Your task to perform on an android device: Toggle the flashlight Image 0: 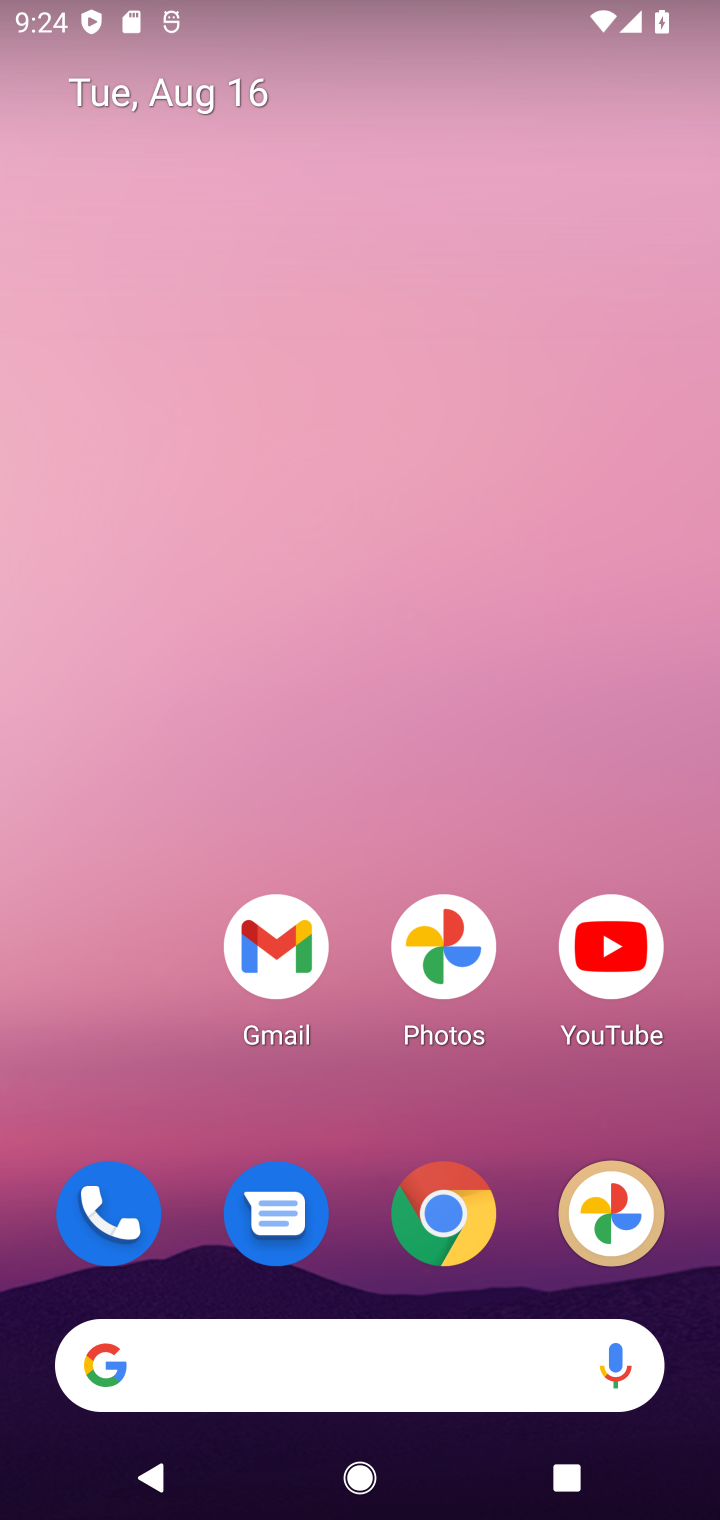
Step 0: drag from (268, 1063) to (287, 380)
Your task to perform on an android device: Toggle the flashlight Image 1: 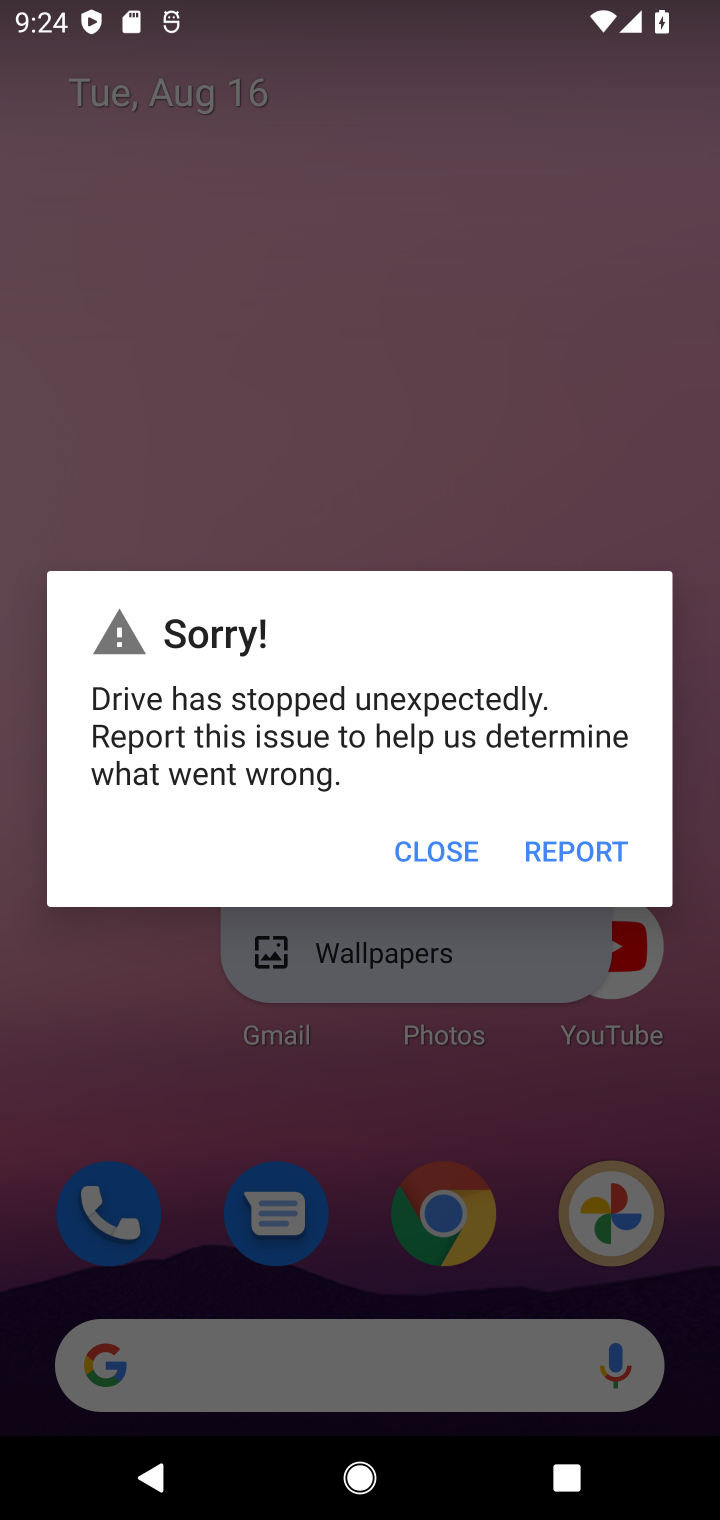
Step 1: click (211, 268)
Your task to perform on an android device: Toggle the flashlight Image 2: 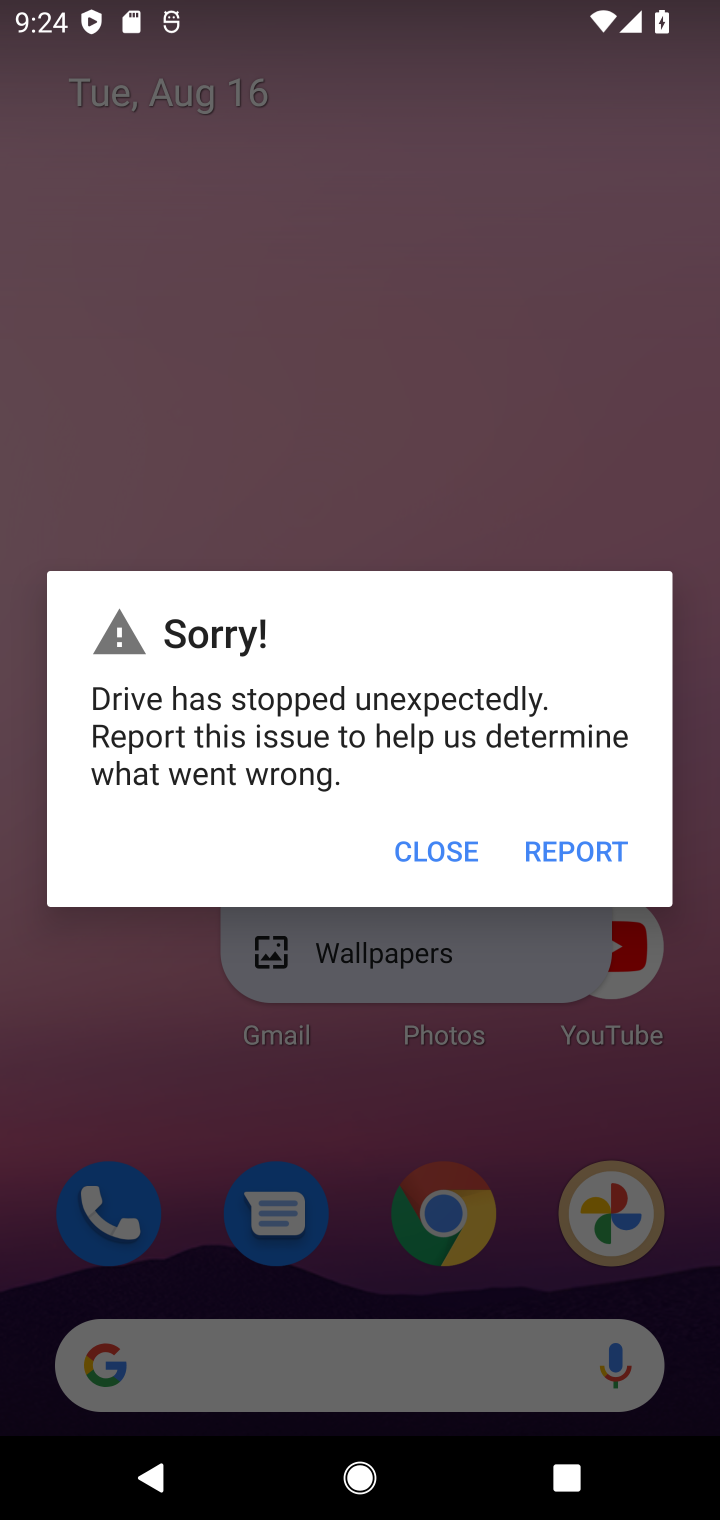
Step 2: click (448, 854)
Your task to perform on an android device: Toggle the flashlight Image 3: 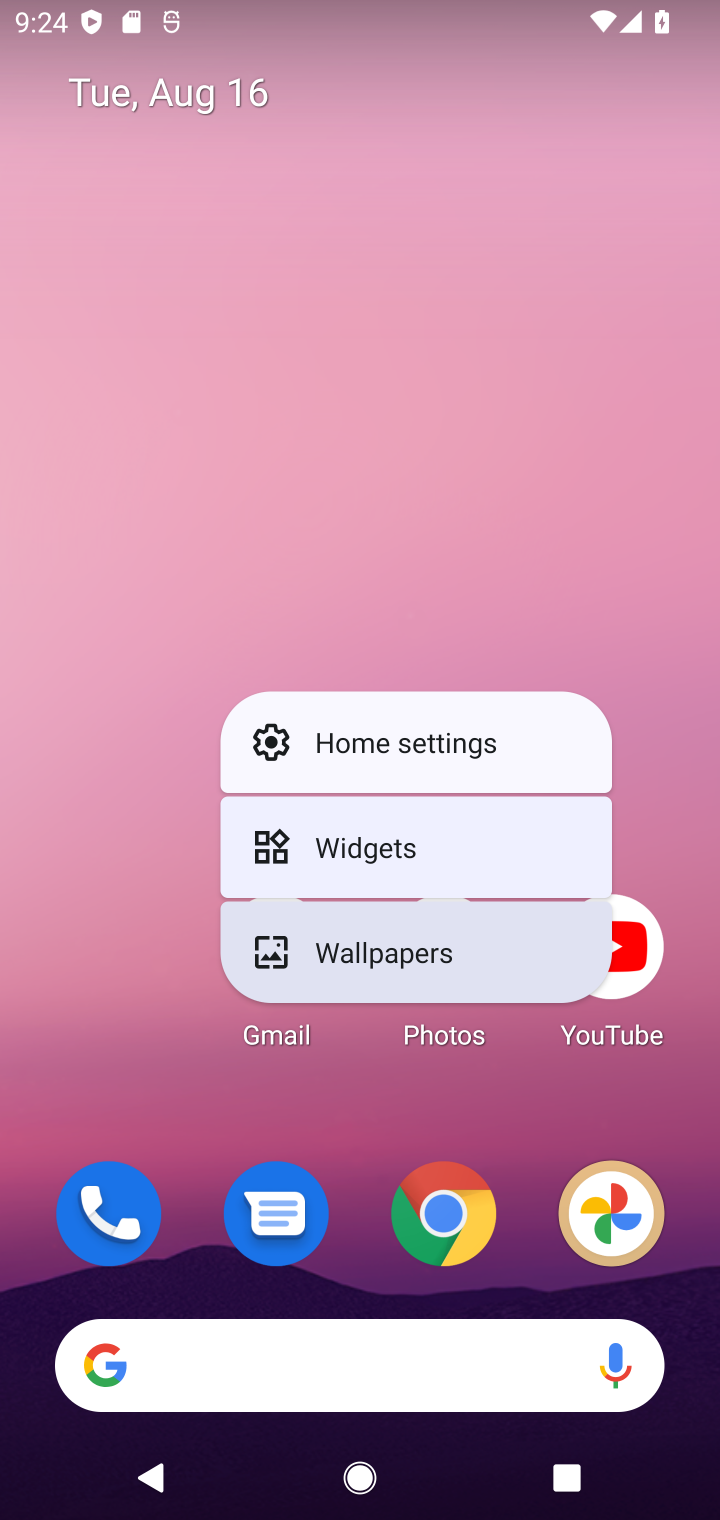
Step 3: drag from (178, 1138) to (201, 463)
Your task to perform on an android device: Toggle the flashlight Image 4: 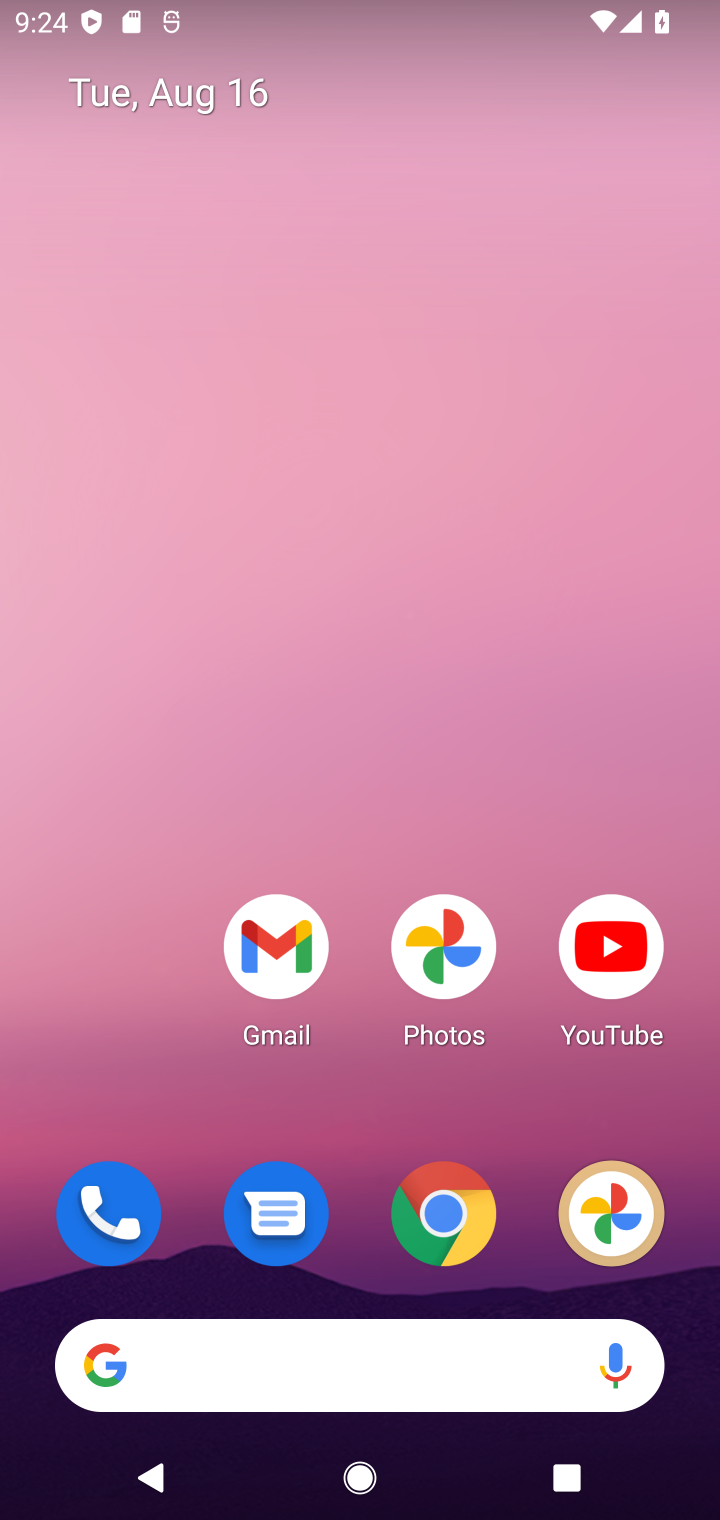
Step 4: drag from (339, 1219) to (361, 443)
Your task to perform on an android device: Toggle the flashlight Image 5: 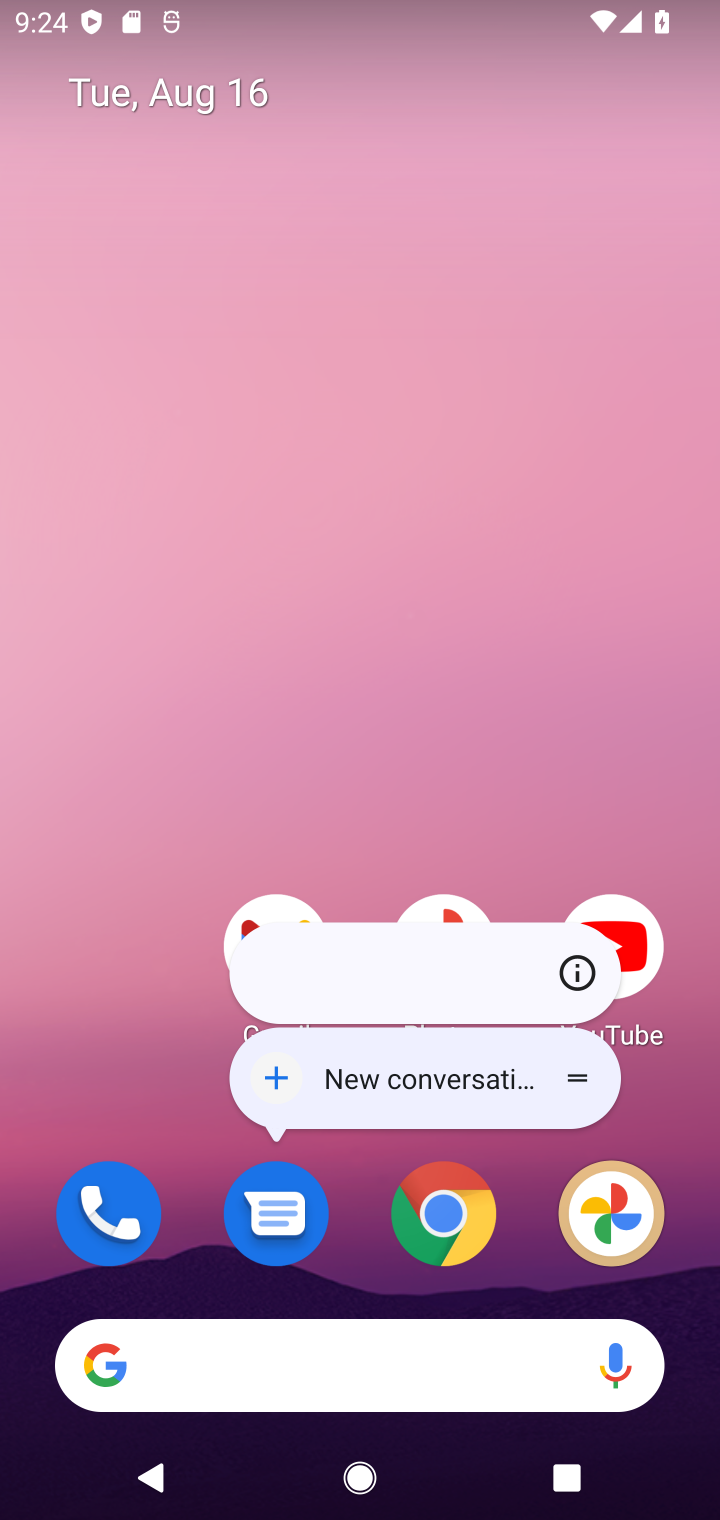
Step 5: click (97, 965)
Your task to perform on an android device: Toggle the flashlight Image 6: 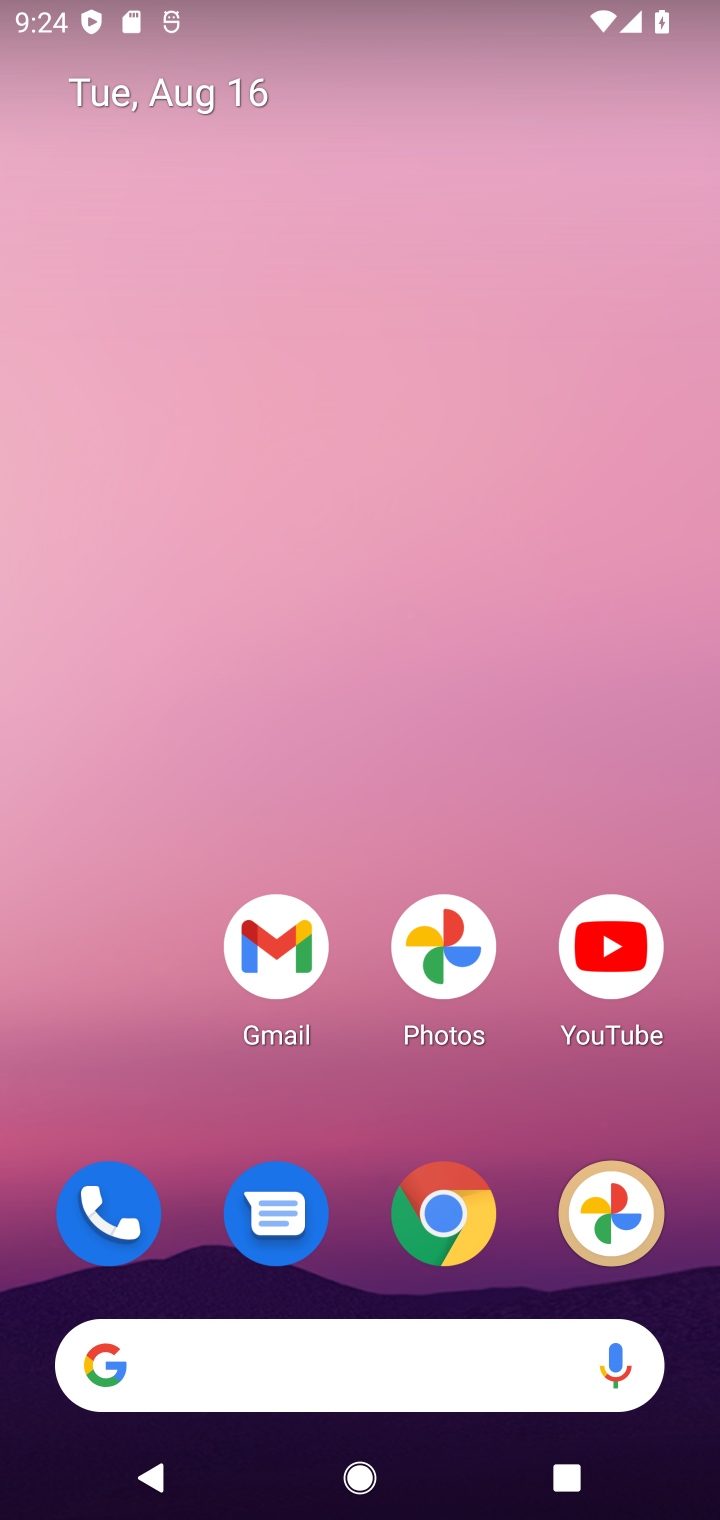
Step 6: drag from (189, 1140) to (282, 275)
Your task to perform on an android device: Toggle the flashlight Image 7: 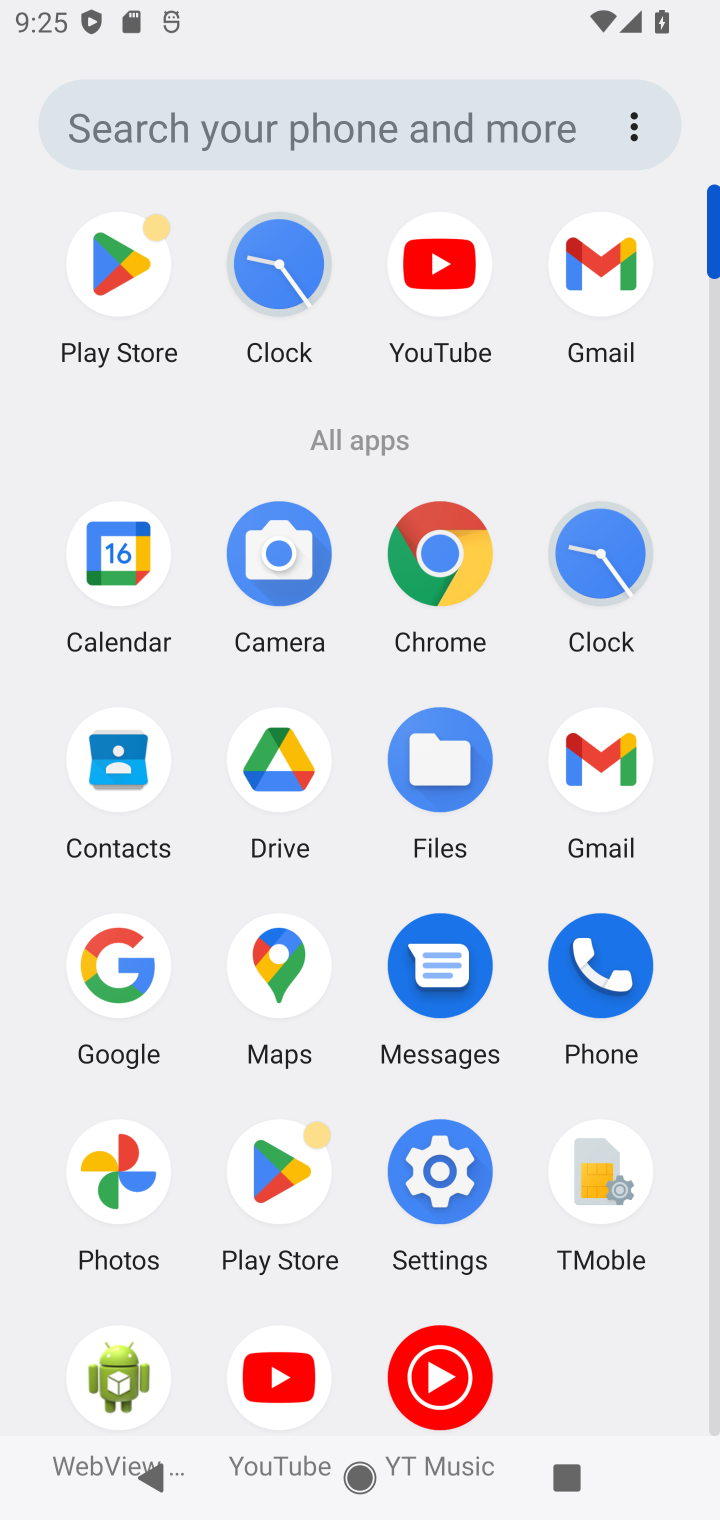
Step 7: click (444, 541)
Your task to perform on an android device: Toggle the flashlight Image 8: 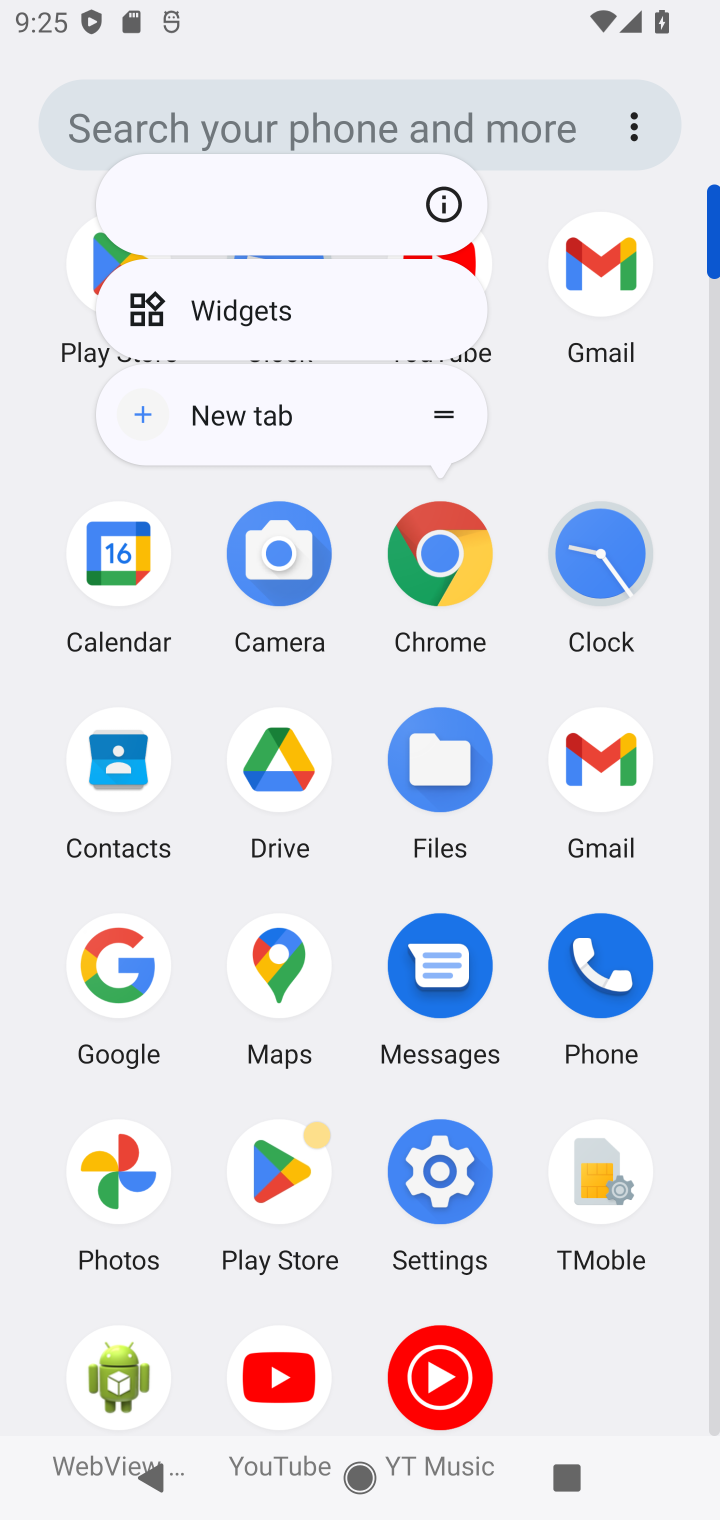
Step 8: click (444, 541)
Your task to perform on an android device: Toggle the flashlight Image 9: 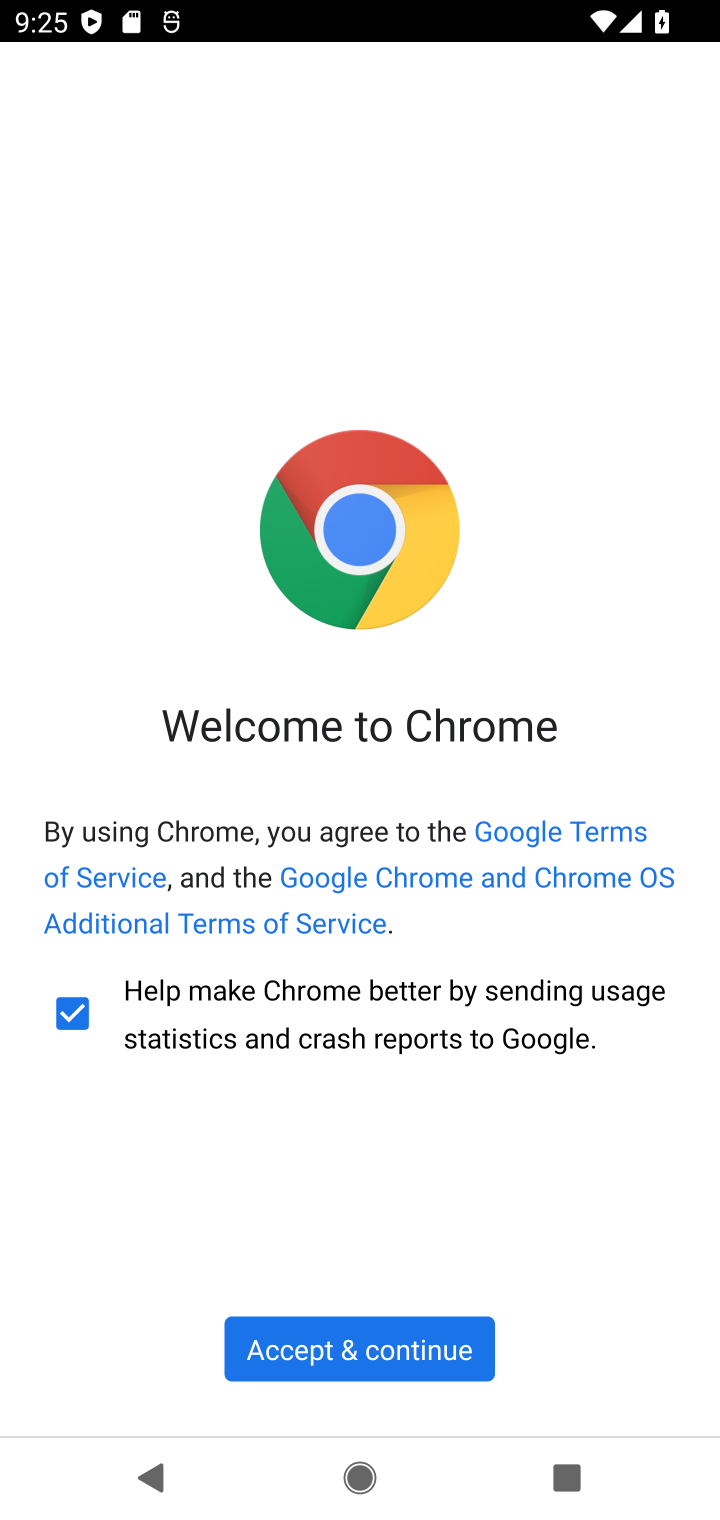
Step 9: click (347, 1342)
Your task to perform on an android device: Toggle the flashlight Image 10: 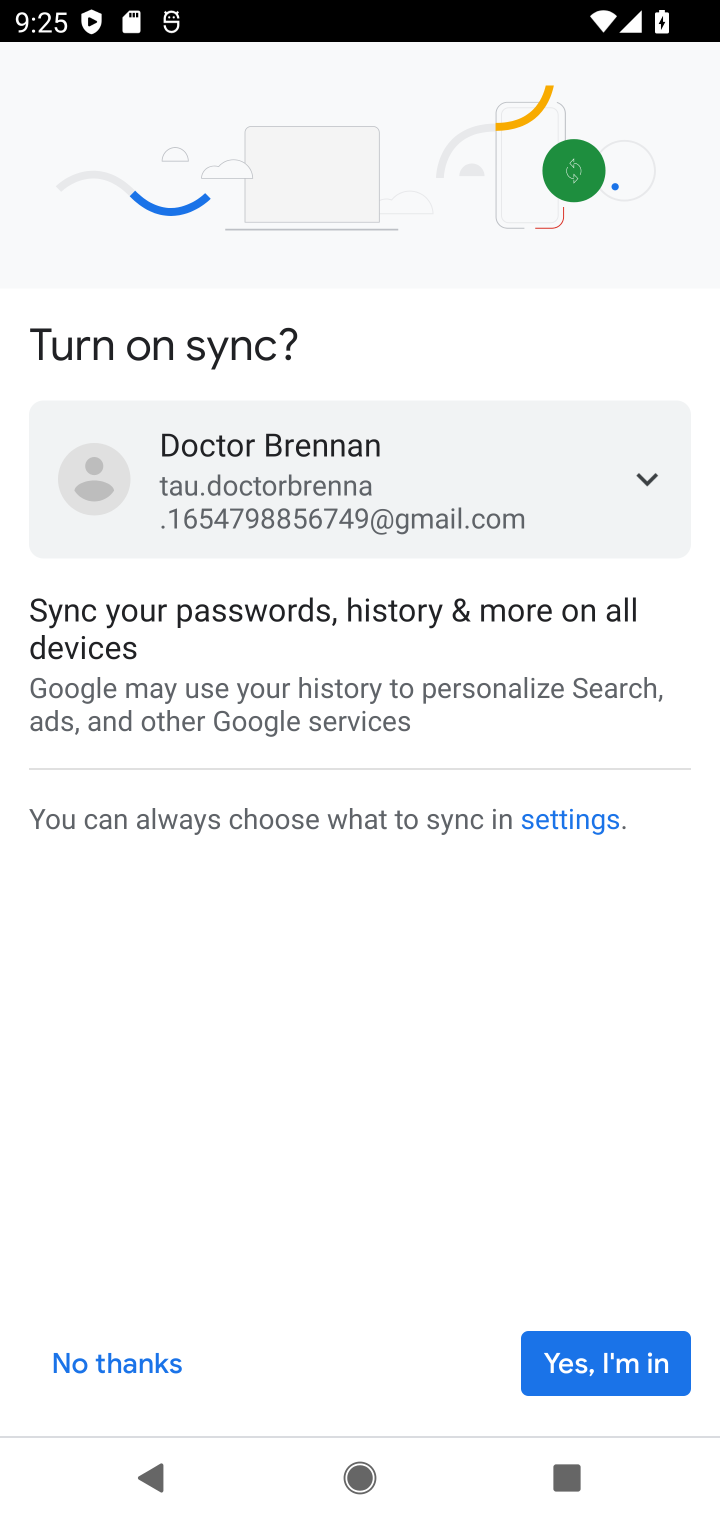
Step 10: click (572, 1355)
Your task to perform on an android device: Toggle the flashlight Image 11: 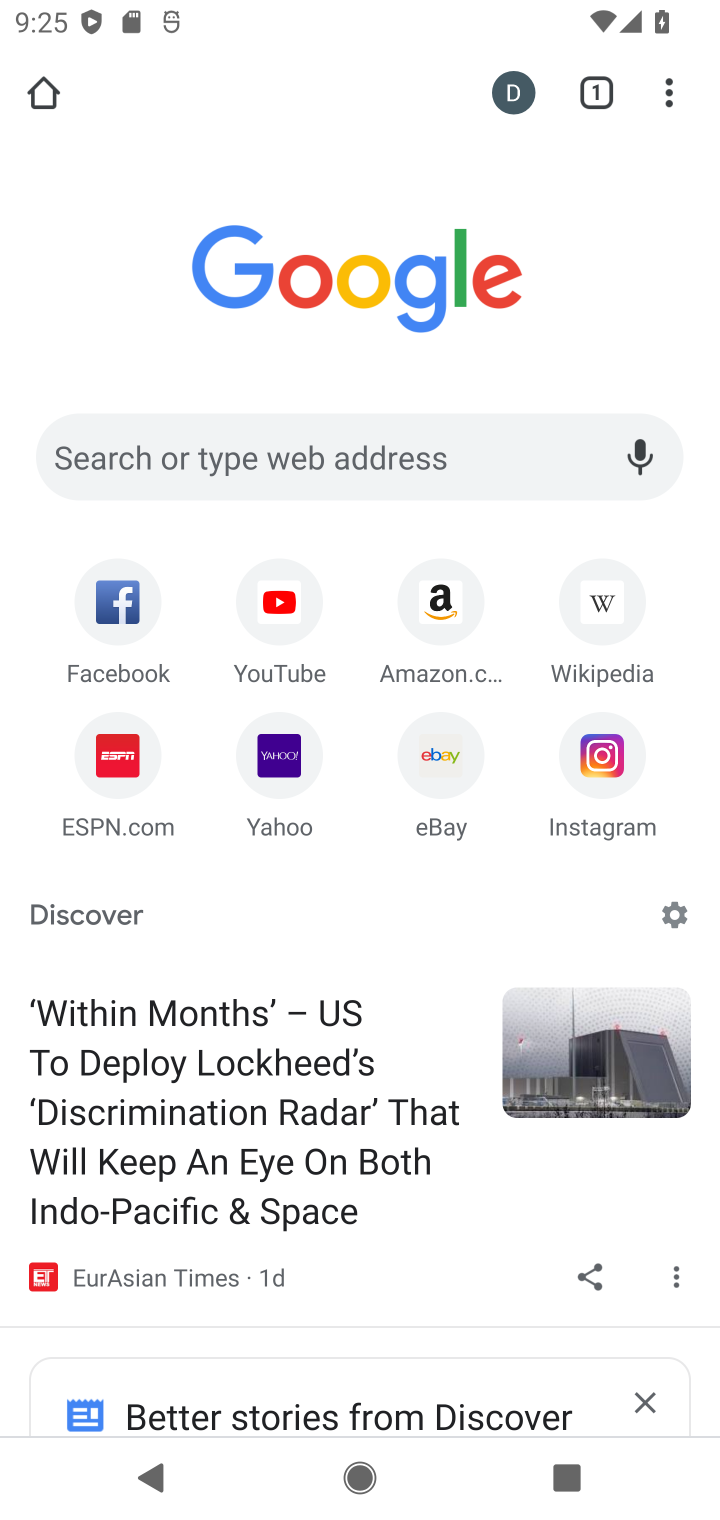
Step 11: press home button
Your task to perform on an android device: Toggle the flashlight Image 12: 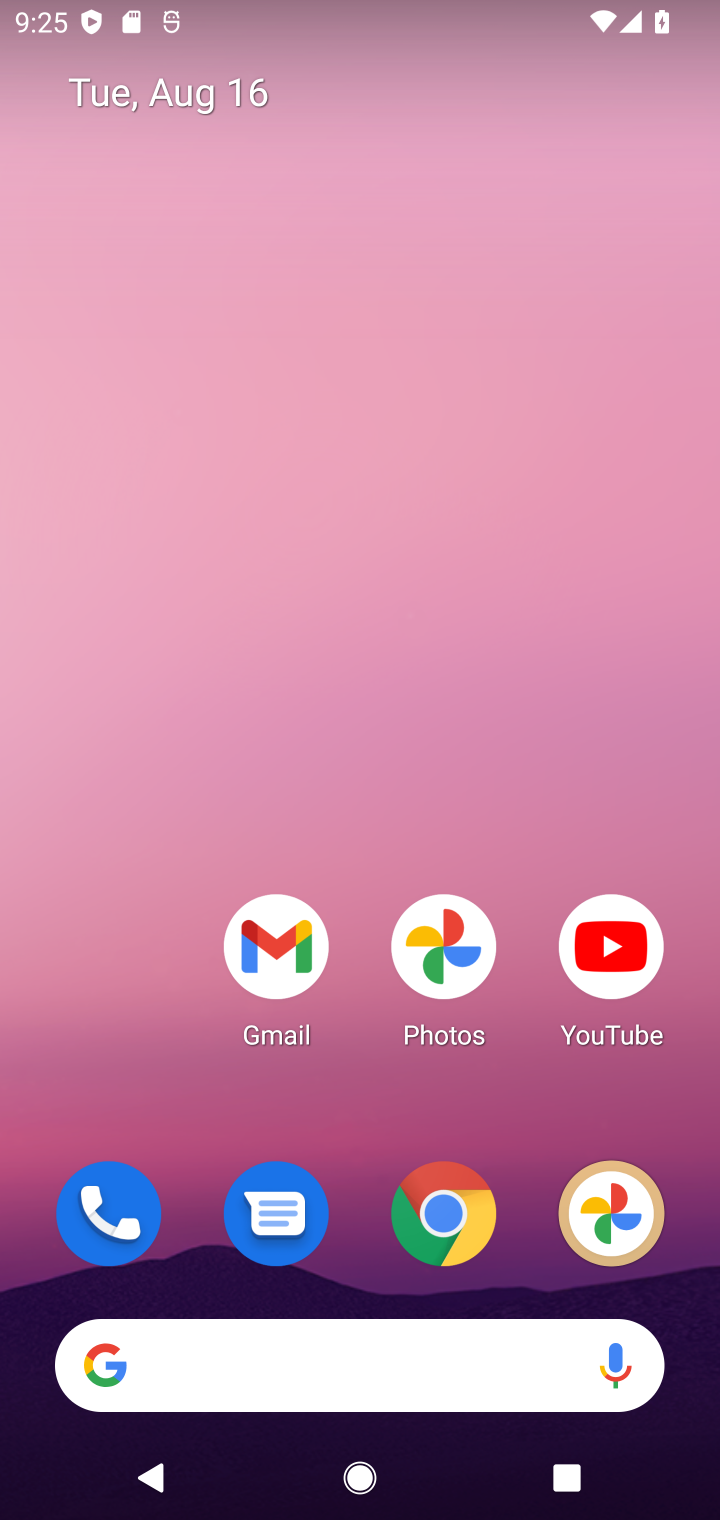
Step 12: press home button
Your task to perform on an android device: Toggle the flashlight Image 13: 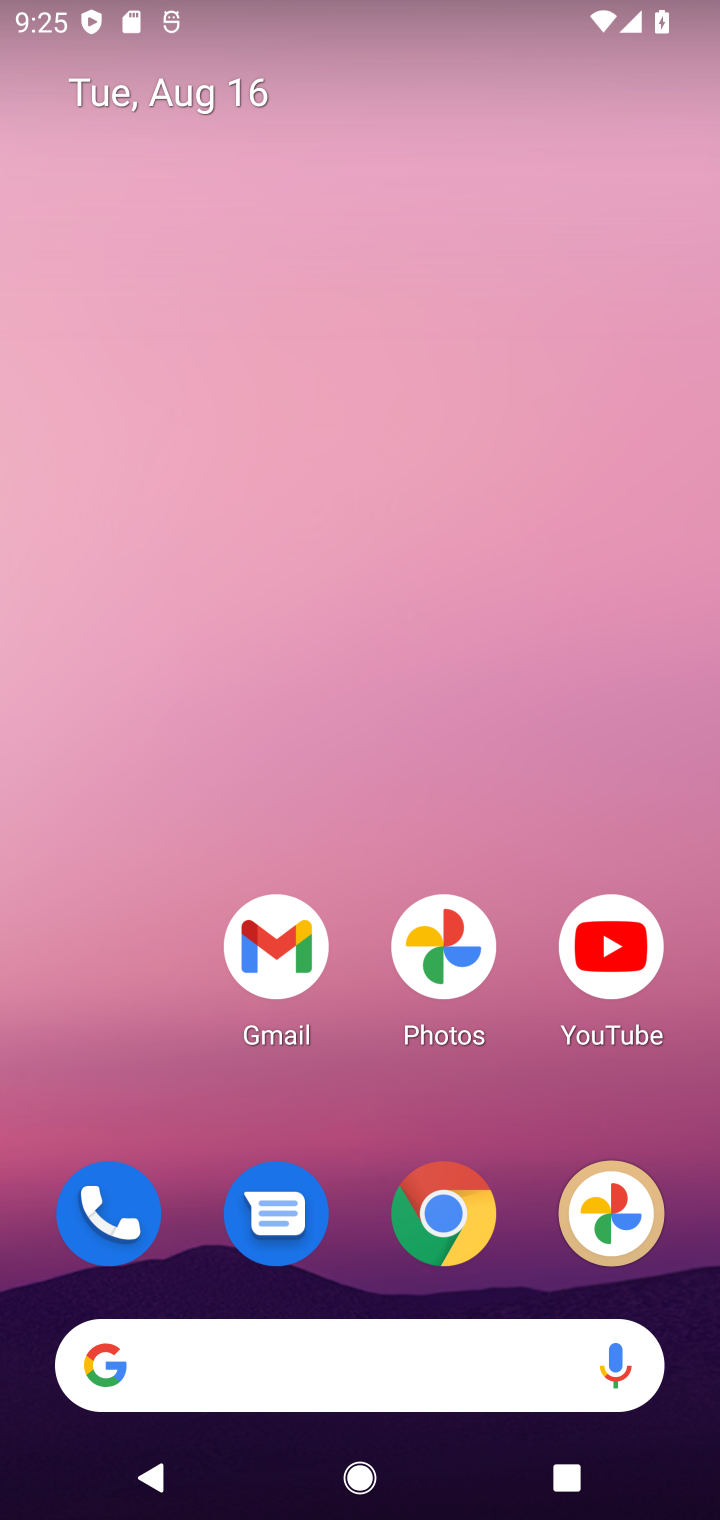
Step 13: drag from (316, 1215) to (322, 304)
Your task to perform on an android device: Toggle the flashlight Image 14: 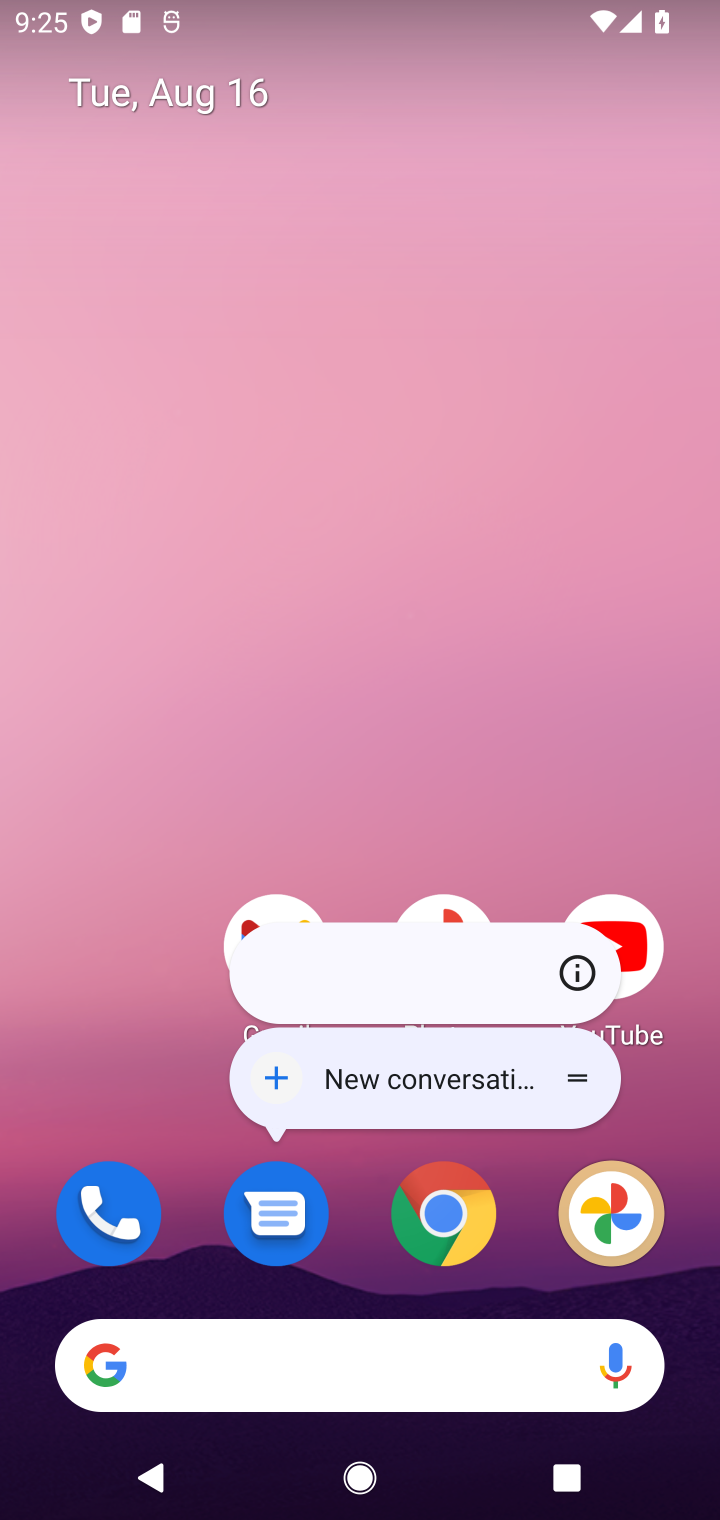
Step 14: click (169, 906)
Your task to perform on an android device: Toggle the flashlight Image 15: 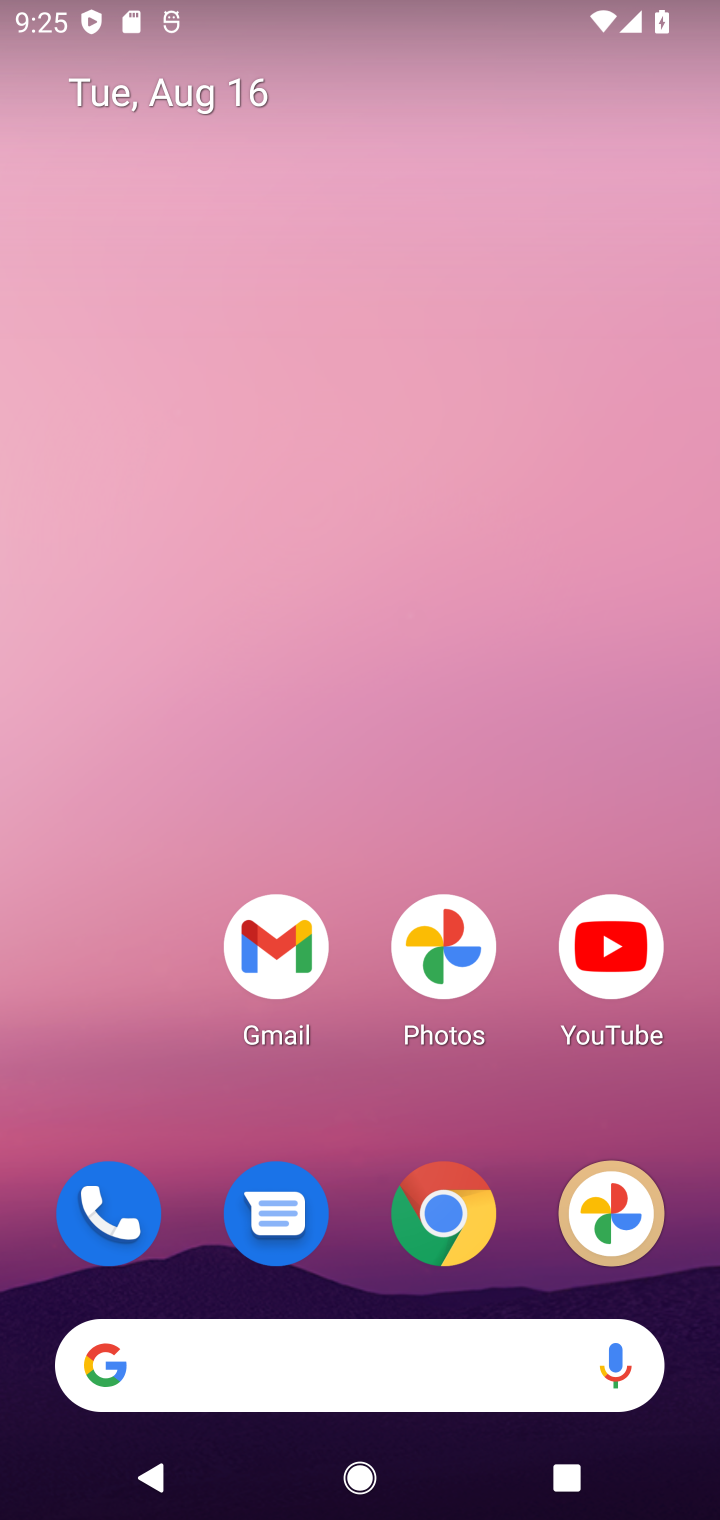
Step 15: drag from (316, 905) to (316, 337)
Your task to perform on an android device: Toggle the flashlight Image 16: 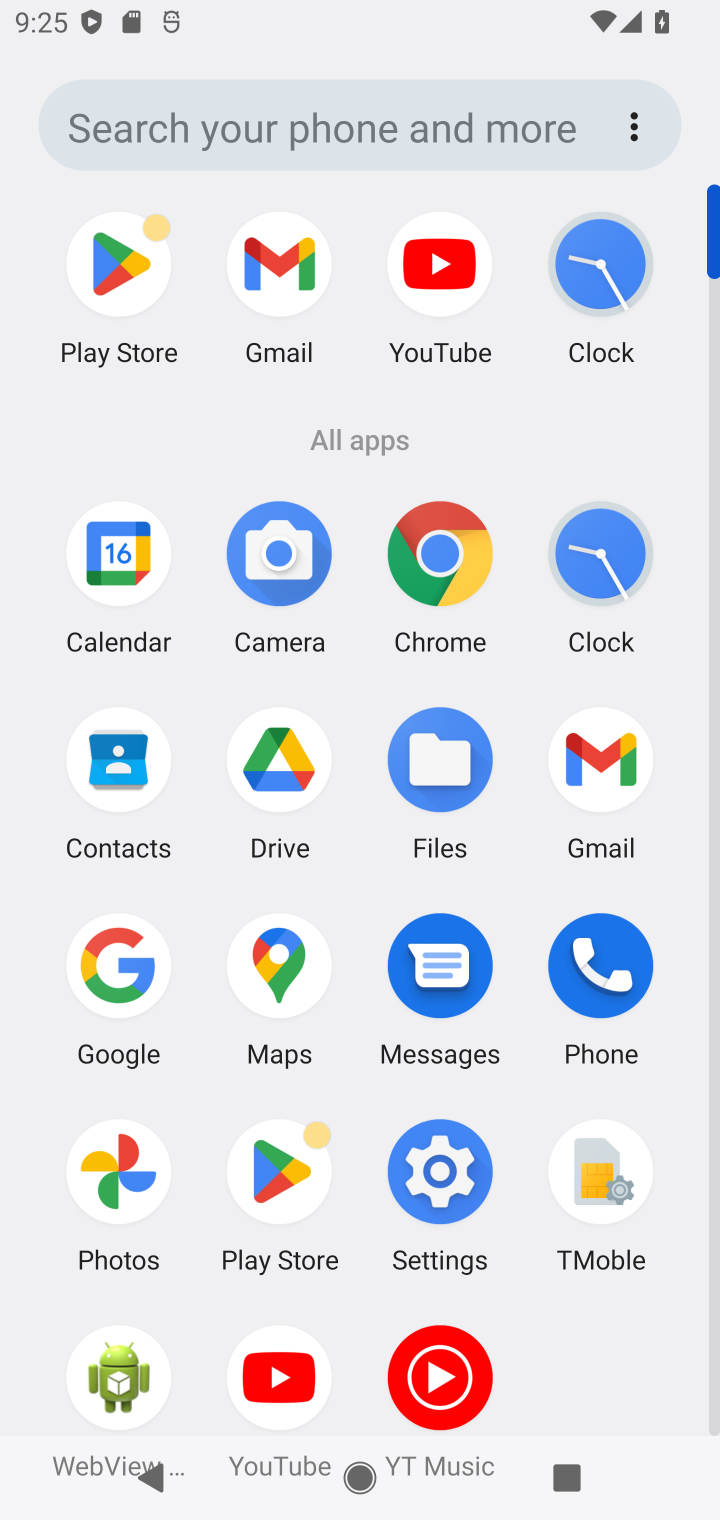
Step 16: click (438, 1189)
Your task to perform on an android device: Toggle the flashlight Image 17: 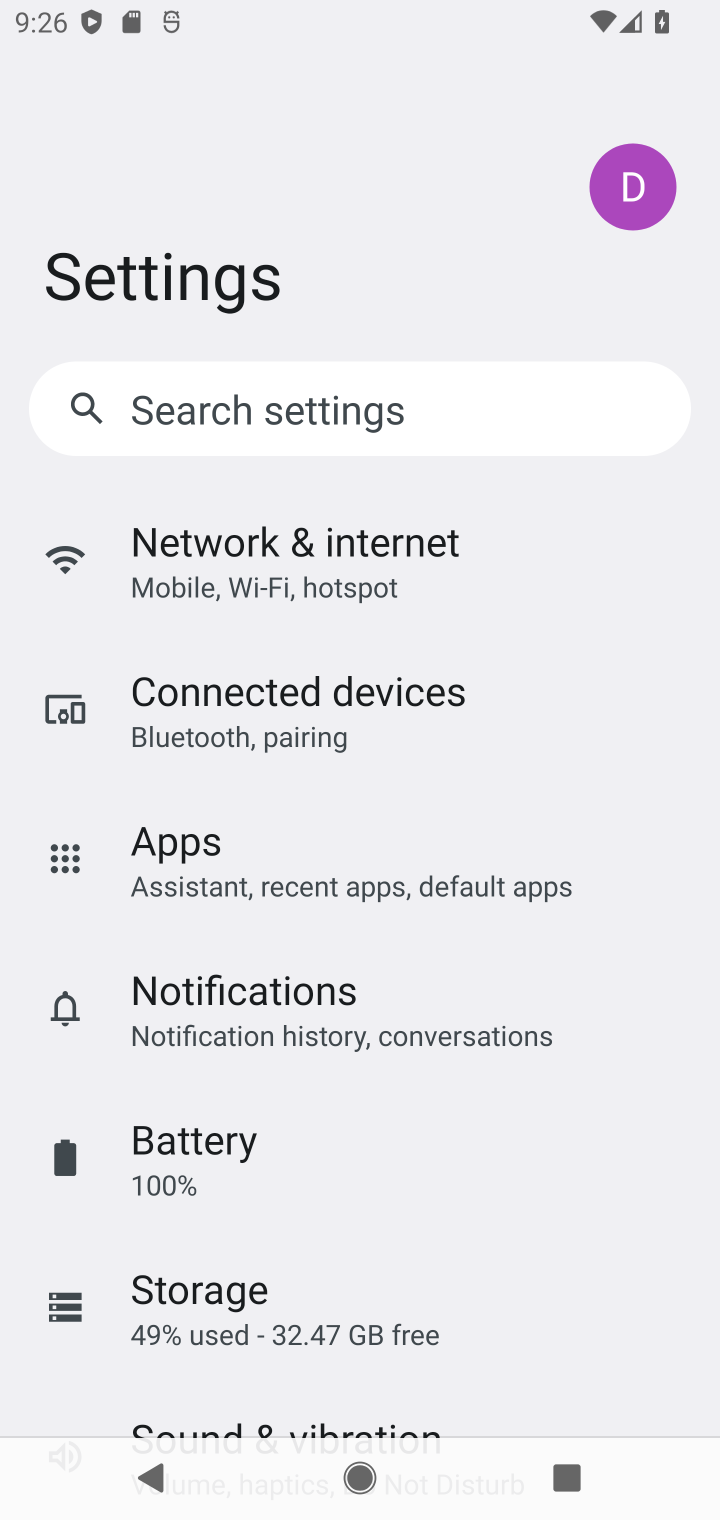
Step 17: task complete